Your task to perform on an android device: see sites visited before in the chrome app Image 0: 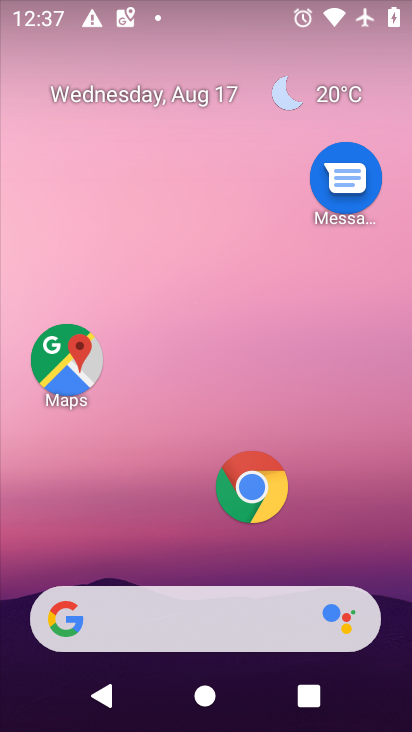
Step 0: click (248, 478)
Your task to perform on an android device: see sites visited before in the chrome app Image 1: 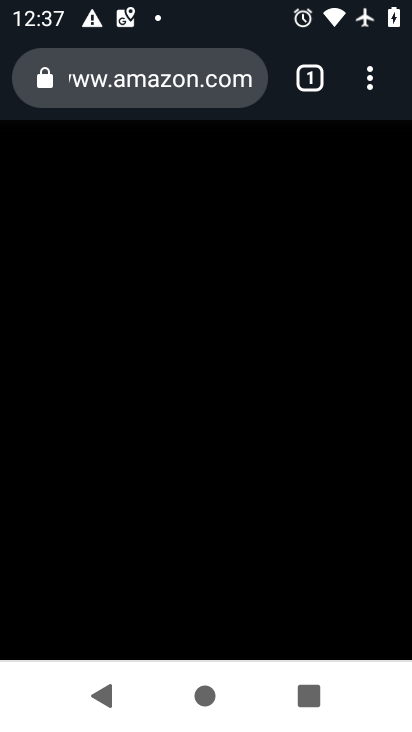
Step 1: task complete